Your task to perform on an android device: Open Youtube and go to the subscriptions tab Image 0: 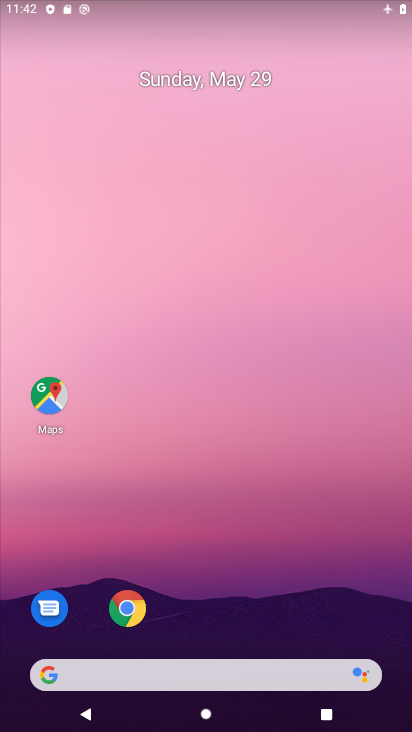
Step 0: drag from (251, 654) to (160, 96)
Your task to perform on an android device: Open Youtube and go to the subscriptions tab Image 1: 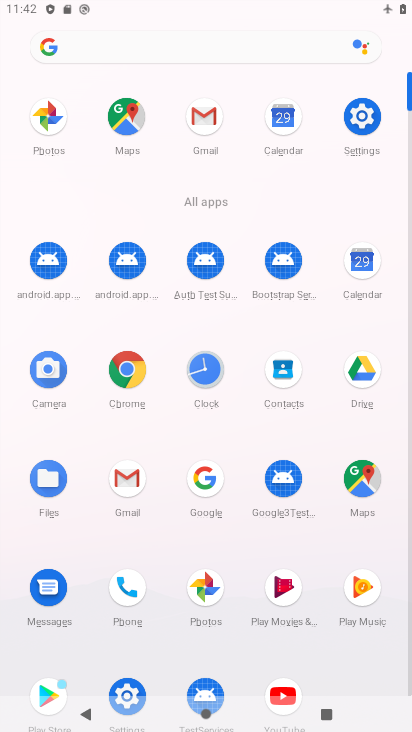
Step 1: click (284, 669)
Your task to perform on an android device: Open Youtube and go to the subscriptions tab Image 2: 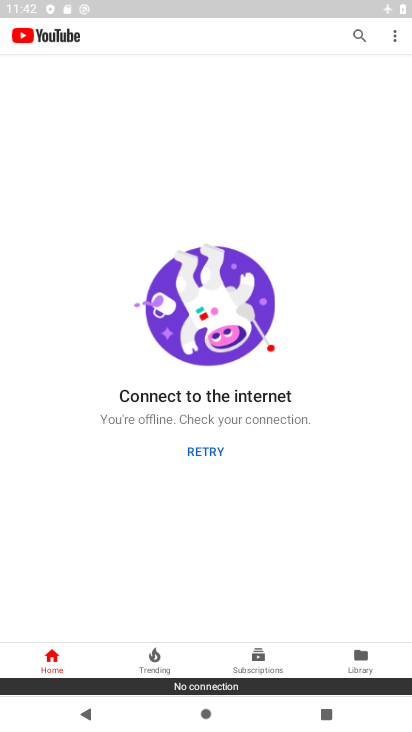
Step 2: click (261, 641)
Your task to perform on an android device: Open Youtube and go to the subscriptions tab Image 3: 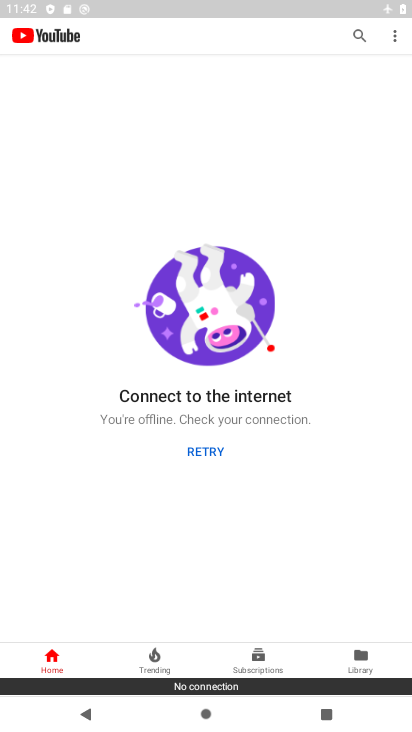
Step 3: click (264, 651)
Your task to perform on an android device: Open Youtube and go to the subscriptions tab Image 4: 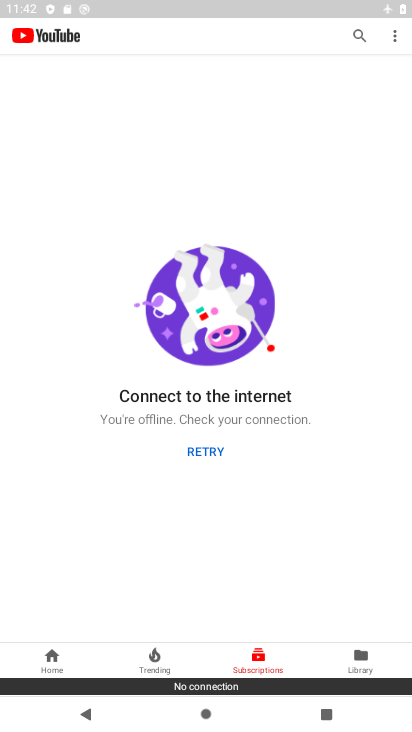
Step 4: task complete